Your task to perform on an android device: find photos in the google photos app Image 0: 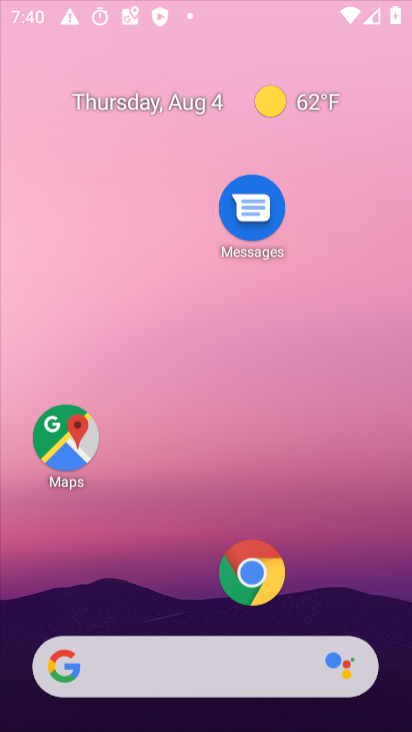
Step 0: press home button
Your task to perform on an android device: find photos in the google photos app Image 1: 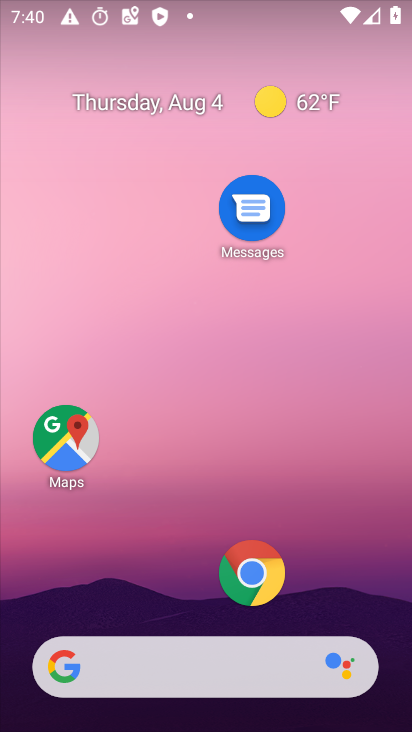
Step 1: drag from (180, 619) to (208, 164)
Your task to perform on an android device: find photos in the google photos app Image 2: 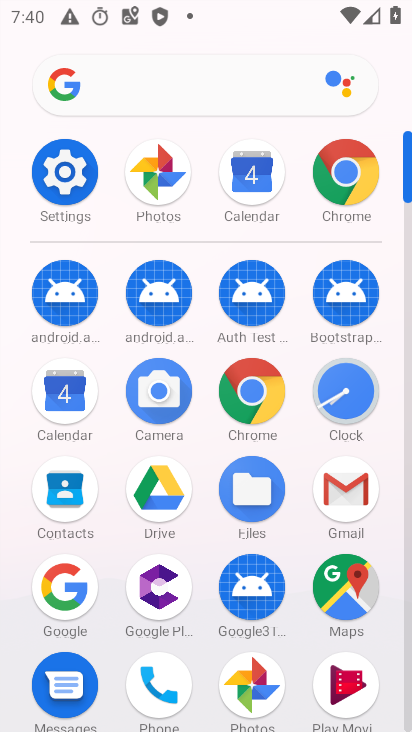
Step 2: click (142, 182)
Your task to perform on an android device: find photos in the google photos app Image 3: 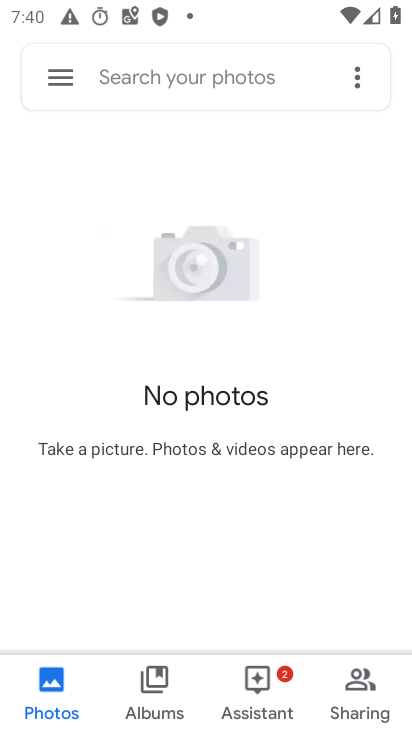
Step 3: task complete